Your task to perform on an android device: Open Google Chrome and click the shortcut for Amazon.com Image 0: 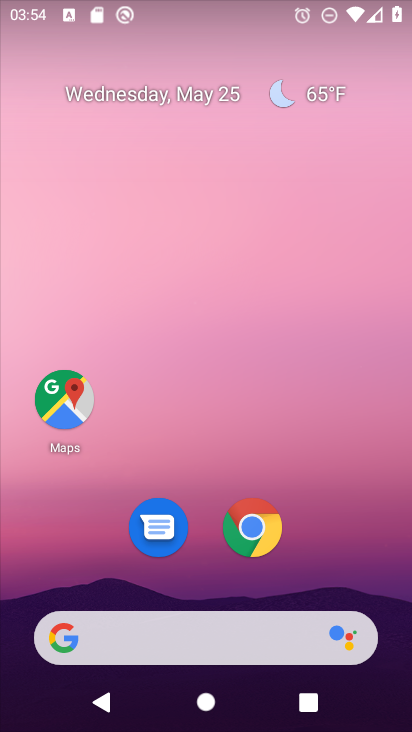
Step 0: drag from (326, 640) to (309, 0)
Your task to perform on an android device: Open Google Chrome and click the shortcut for Amazon.com Image 1: 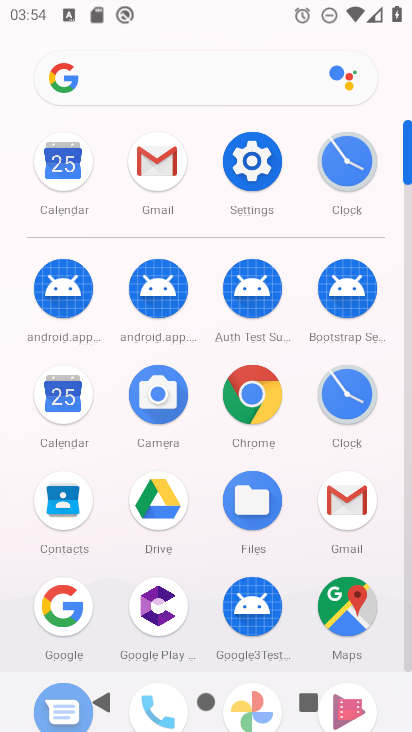
Step 1: click (243, 386)
Your task to perform on an android device: Open Google Chrome and click the shortcut for Amazon.com Image 2: 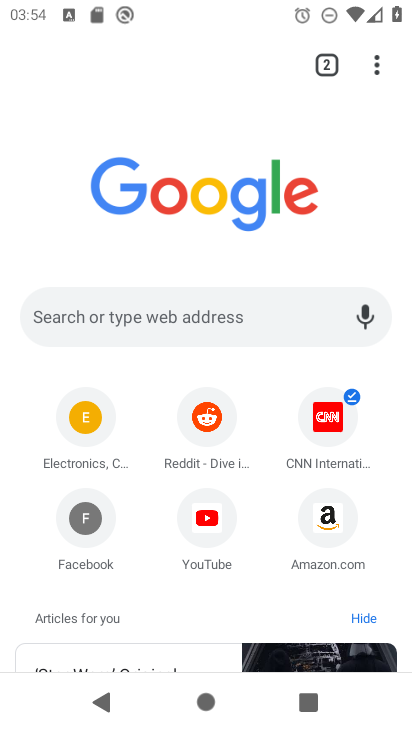
Step 2: drag from (380, 64) to (205, 128)
Your task to perform on an android device: Open Google Chrome and click the shortcut for Amazon.com Image 3: 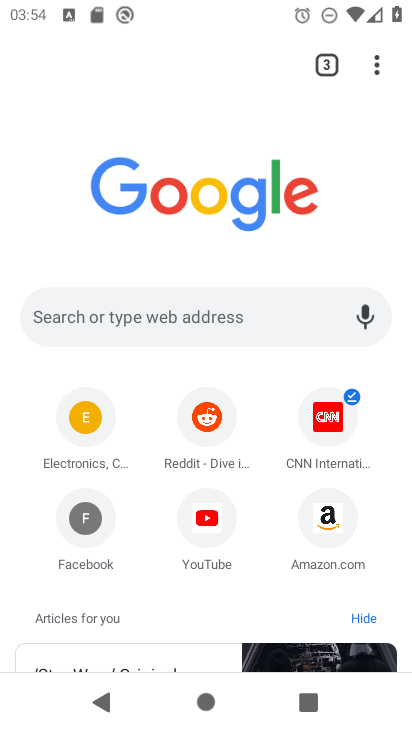
Step 3: click (309, 503)
Your task to perform on an android device: Open Google Chrome and click the shortcut for Amazon.com Image 4: 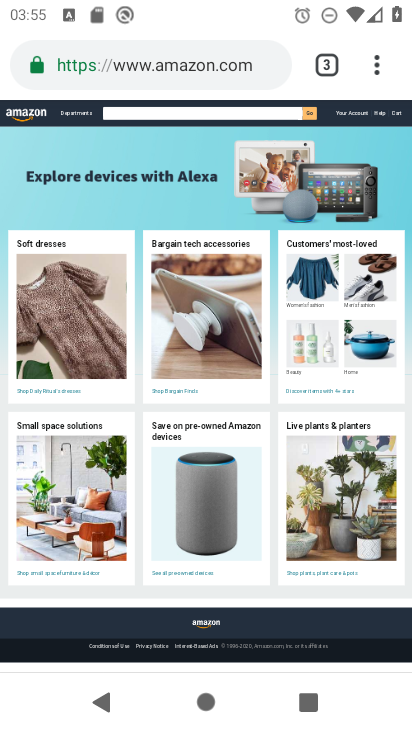
Step 4: task complete